Your task to perform on an android device: Open maps Image 0: 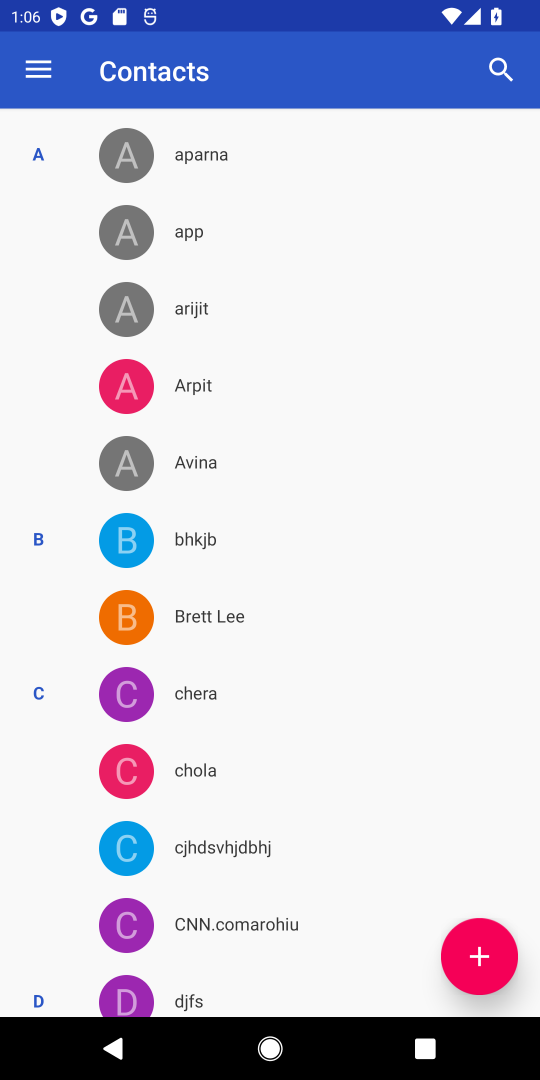
Step 0: press home button
Your task to perform on an android device: Open maps Image 1: 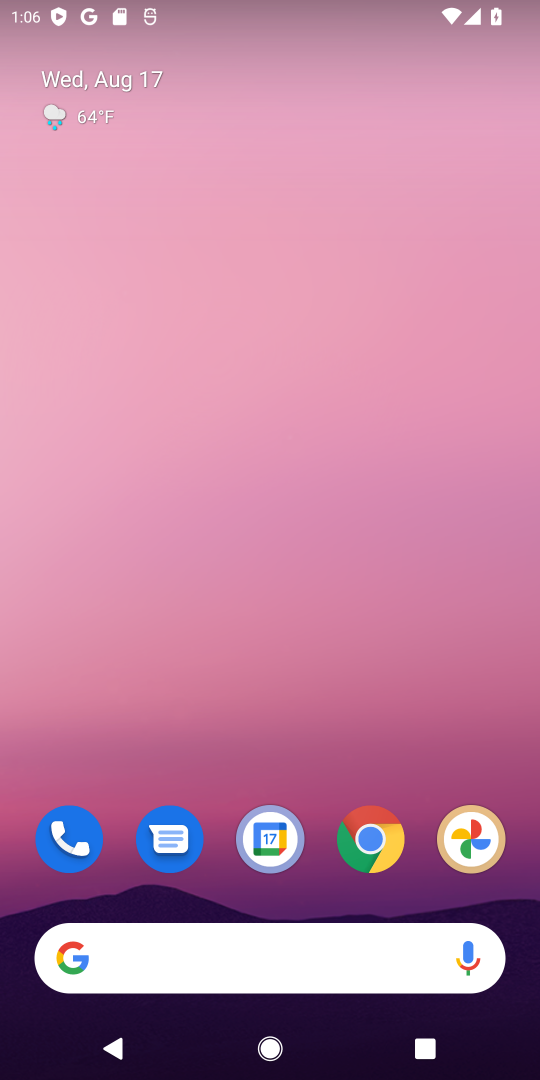
Step 1: drag from (212, 931) to (211, 261)
Your task to perform on an android device: Open maps Image 2: 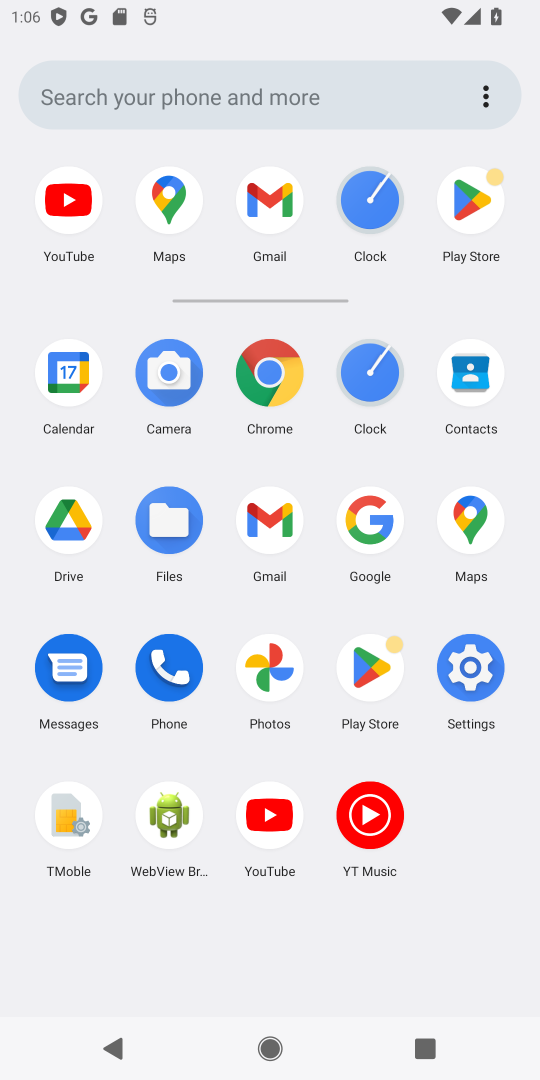
Step 2: click (175, 196)
Your task to perform on an android device: Open maps Image 3: 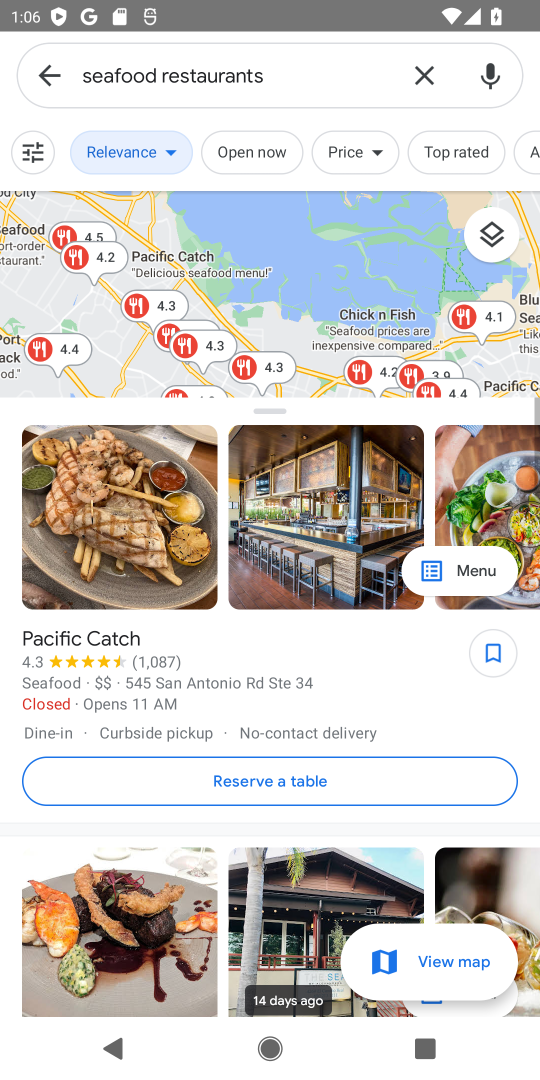
Step 3: task complete